Your task to perform on an android device: Turn on the flashlight Image 0: 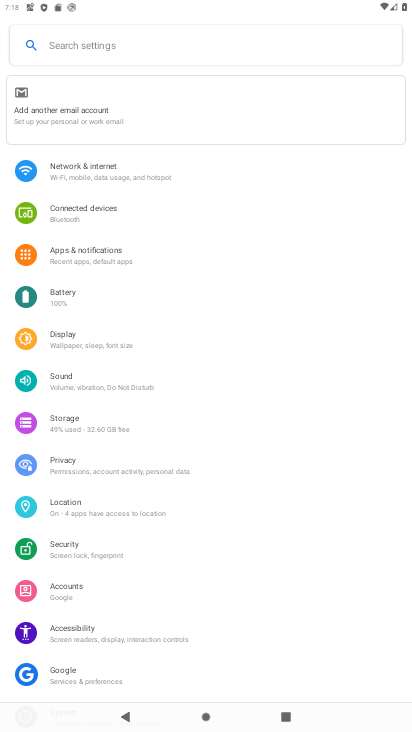
Step 0: press home button
Your task to perform on an android device: Turn on the flashlight Image 1: 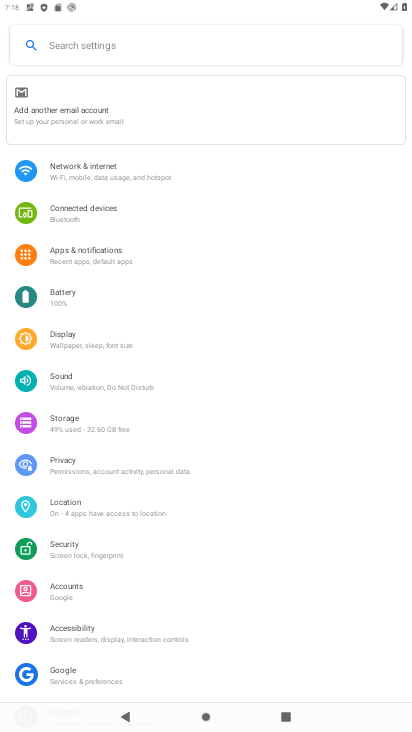
Step 1: press home button
Your task to perform on an android device: Turn on the flashlight Image 2: 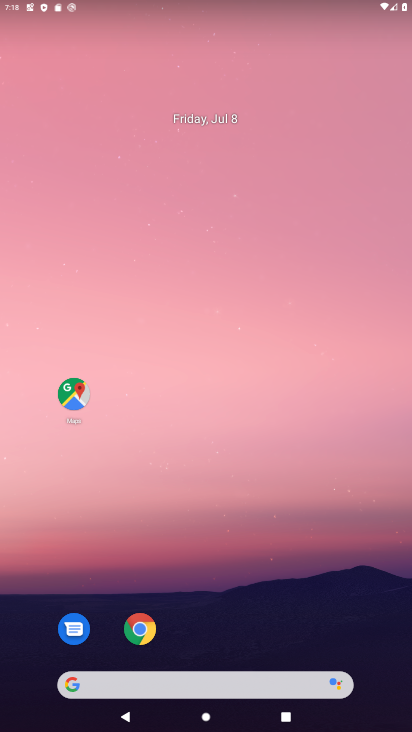
Step 2: press home button
Your task to perform on an android device: Turn on the flashlight Image 3: 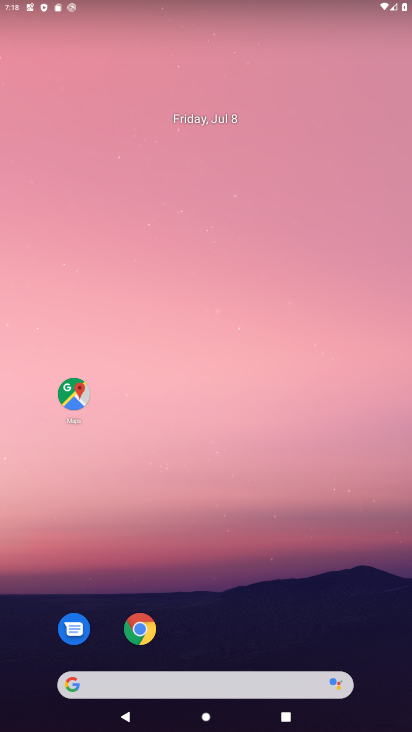
Step 3: drag from (247, 633) to (215, 121)
Your task to perform on an android device: Turn on the flashlight Image 4: 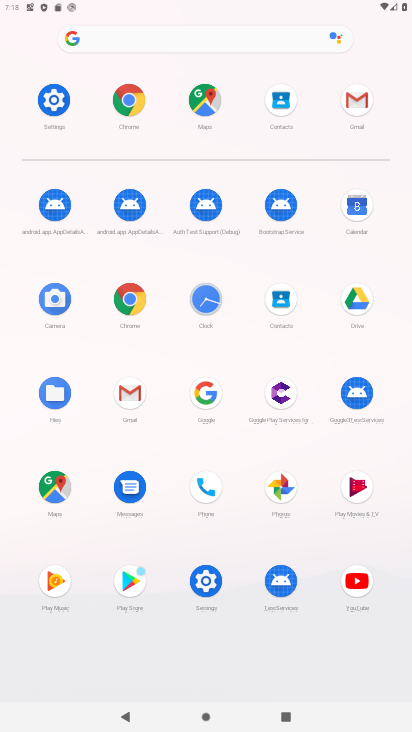
Step 4: drag from (373, 278) to (325, 536)
Your task to perform on an android device: Turn on the flashlight Image 5: 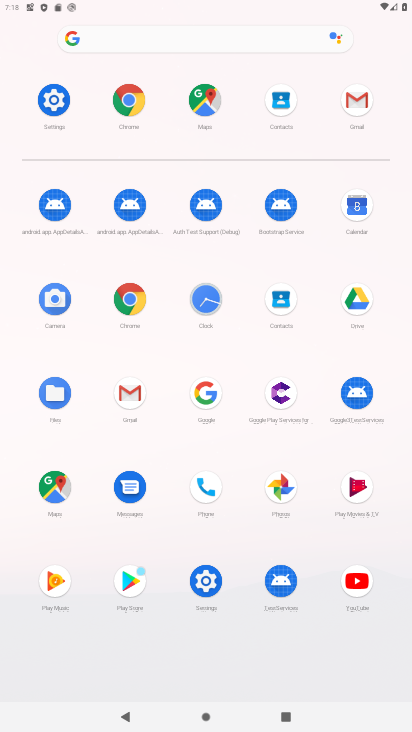
Step 5: drag from (224, 10) to (5, 688)
Your task to perform on an android device: Turn on the flashlight Image 6: 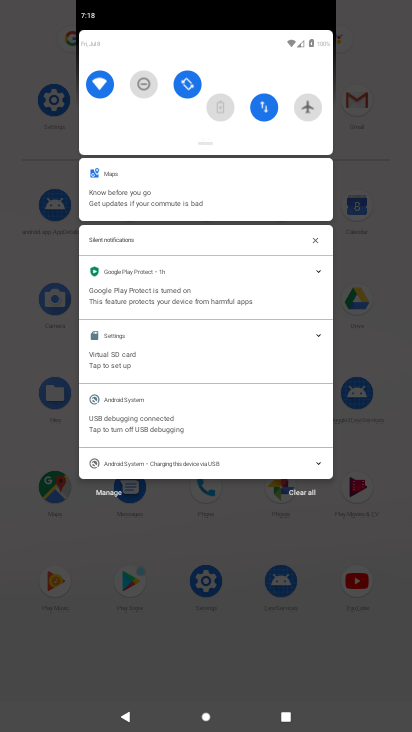
Step 6: click (103, 606)
Your task to perform on an android device: Turn on the flashlight Image 7: 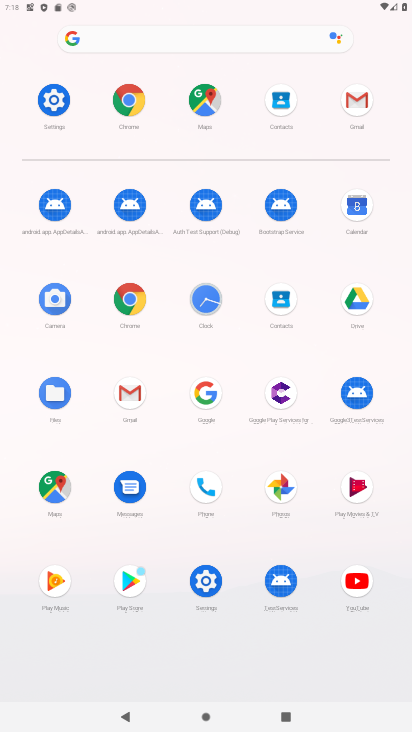
Step 7: task complete